Your task to perform on an android device: Search for sushi restaurants on Maps Image 0: 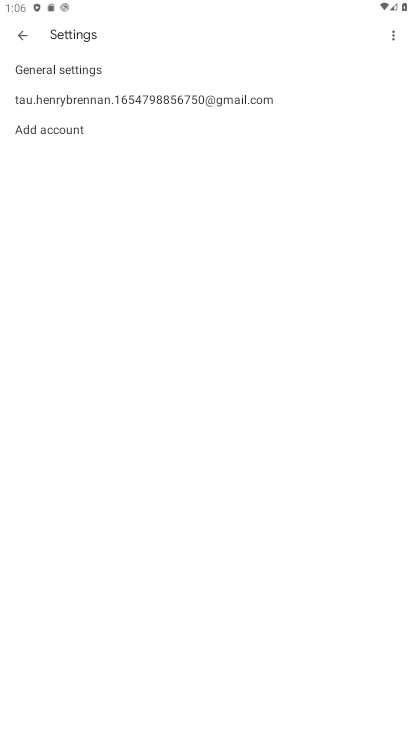
Step 0: press home button
Your task to perform on an android device: Search for sushi restaurants on Maps Image 1: 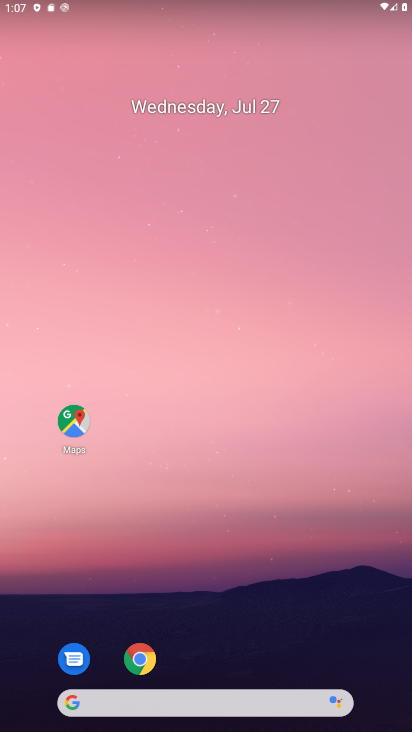
Step 1: drag from (206, 623) to (272, 14)
Your task to perform on an android device: Search for sushi restaurants on Maps Image 2: 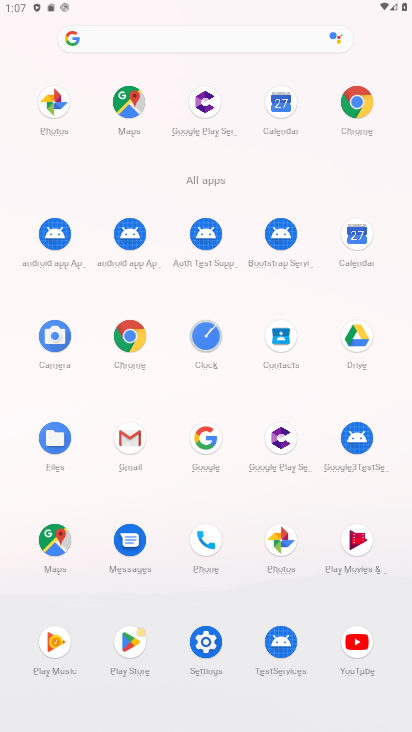
Step 2: click (121, 114)
Your task to perform on an android device: Search for sushi restaurants on Maps Image 3: 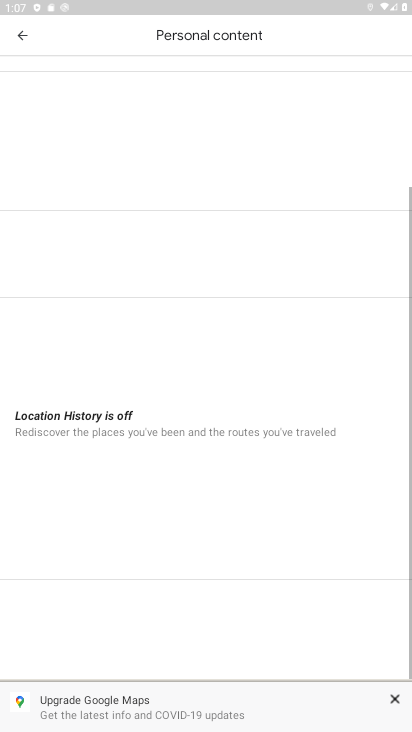
Step 3: drag from (121, 117) to (114, 492)
Your task to perform on an android device: Search for sushi restaurants on Maps Image 4: 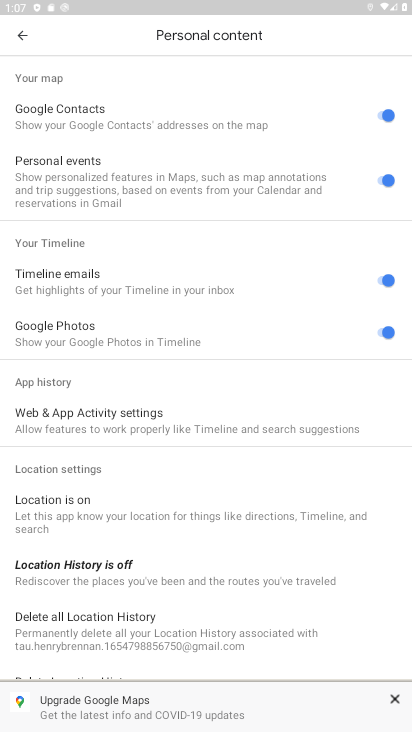
Step 4: click (24, 46)
Your task to perform on an android device: Search for sushi restaurants on Maps Image 5: 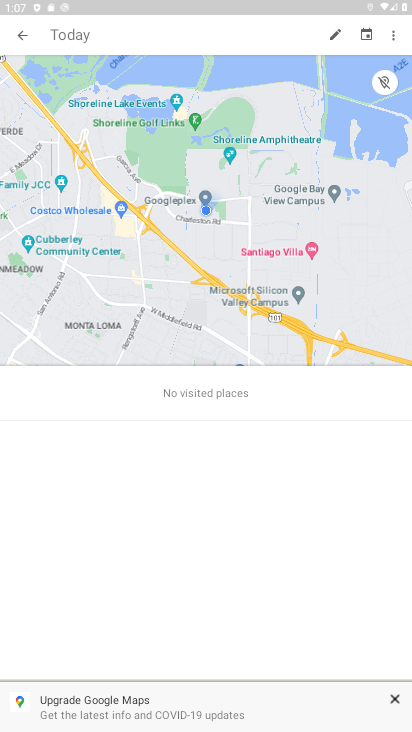
Step 5: click (24, 46)
Your task to perform on an android device: Search for sushi restaurants on Maps Image 6: 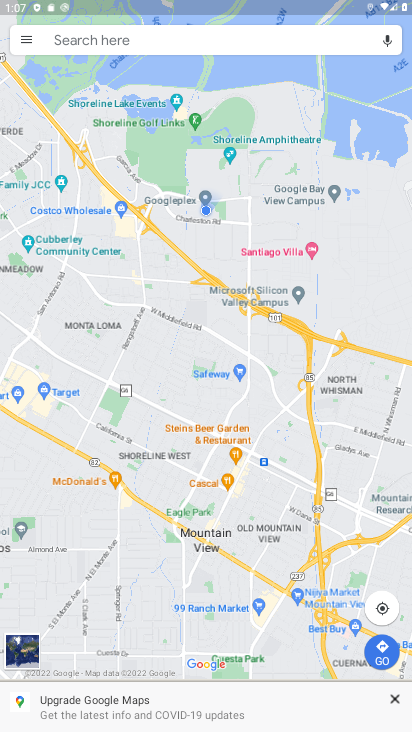
Step 6: click (95, 36)
Your task to perform on an android device: Search for sushi restaurants on Maps Image 7: 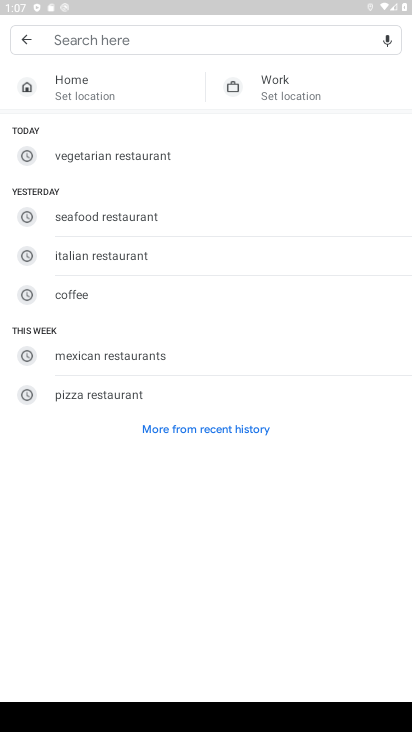
Step 7: type "sushi resturents"
Your task to perform on an android device: Search for sushi restaurants on Maps Image 8: 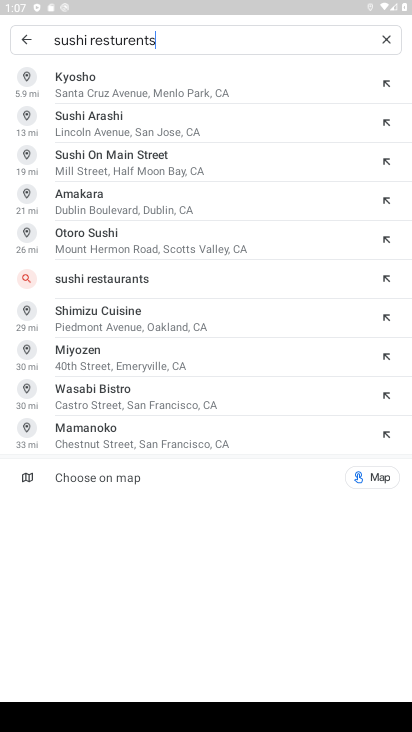
Step 8: press enter
Your task to perform on an android device: Search for sushi restaurants on Maps Image 9: 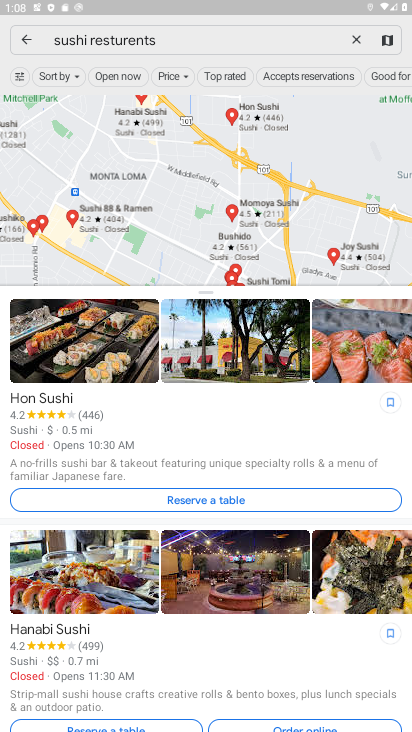
Step 9: task complete